Your task to perform on an android device: see creations saved in the google photos Image 0: 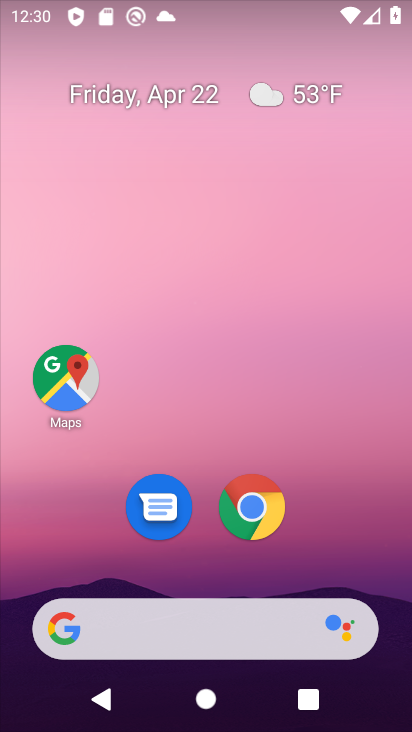
Step 0: drag from (333, 488) to (271, 126)
Your task to perform on an android device: see creations saved in the google photos Image 1: 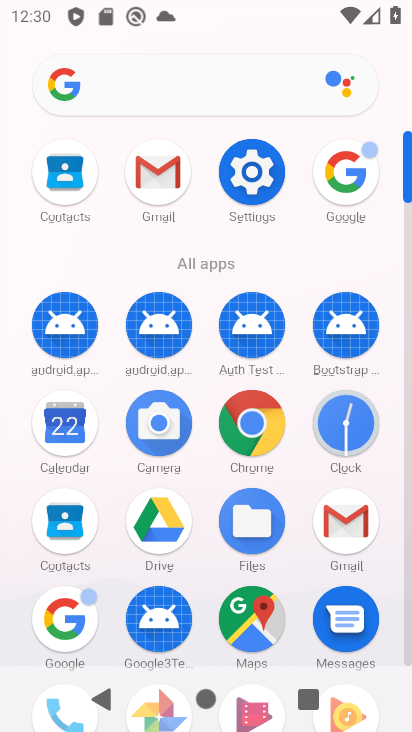
Step 1: drag from (209, 656) to (210, 249)
Your task to perform on an android device: see creations saved in the google photos Image 2: 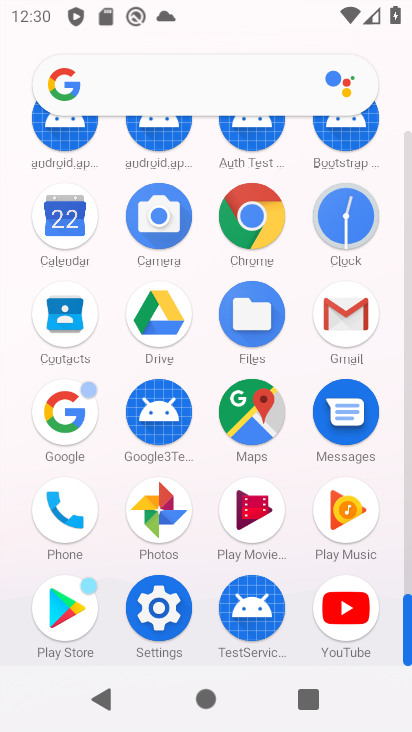
Step 2: click (163, 513)
Your task to perform on an android device: see creations saved in the google photos Image 3: 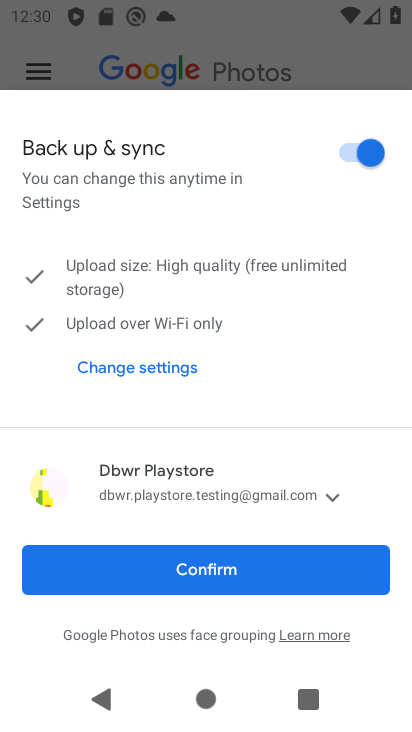
Step 3: click (162, 560)
Your task to perform on an android device: see creations saved in the google photos Image 4: 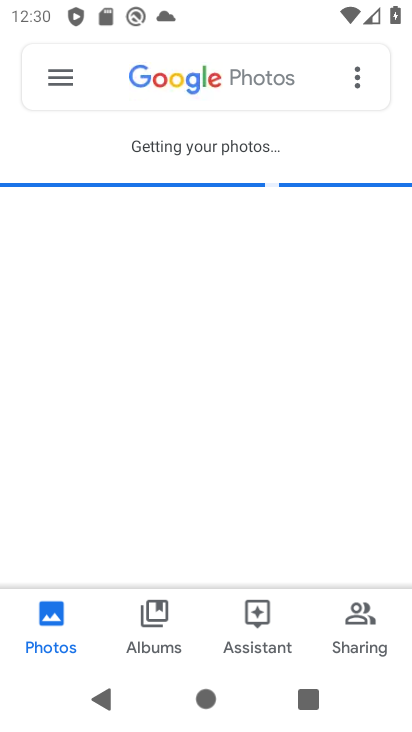
Step 4: click (46, 81)
Your task to perform on an android device: see creations saved in the google photos Image 5: 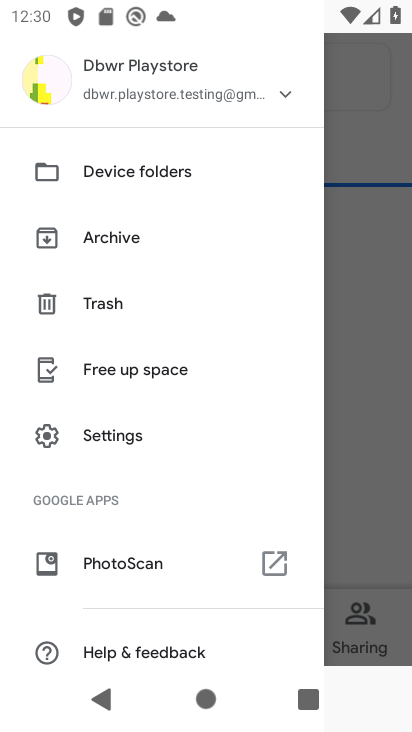
Step 5: click (361, 92)
Your task to perform on an android device: see creations saved in the google photos Image 6: 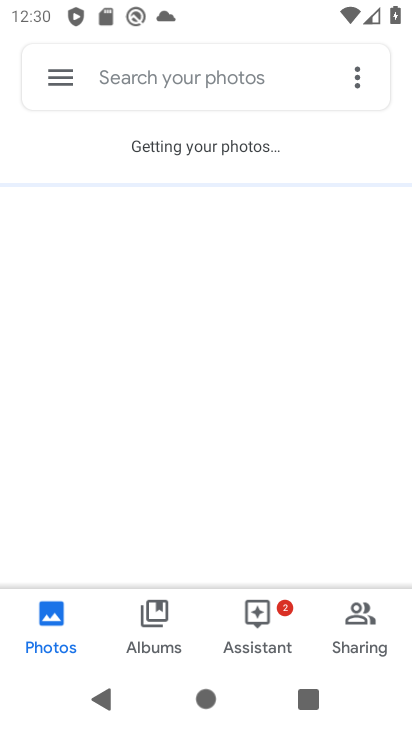
Step 6: click (258, 82)
Your task to perform on an android device: see creations saved in the google photos Image 7: 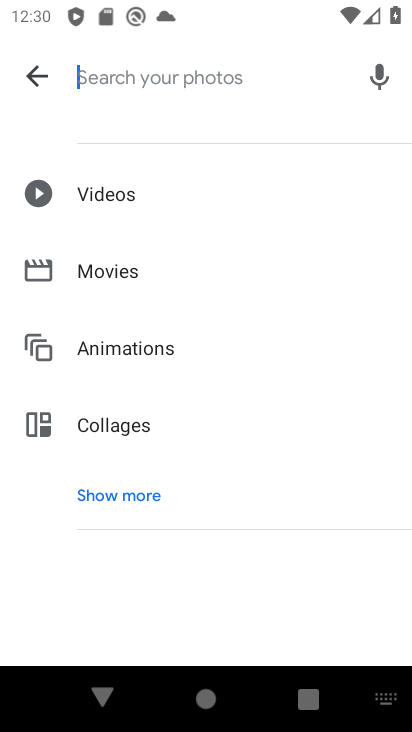
Step 7: click (114, 498)
Your task to perform on an android device: see creations saved in the google photos Image 8: 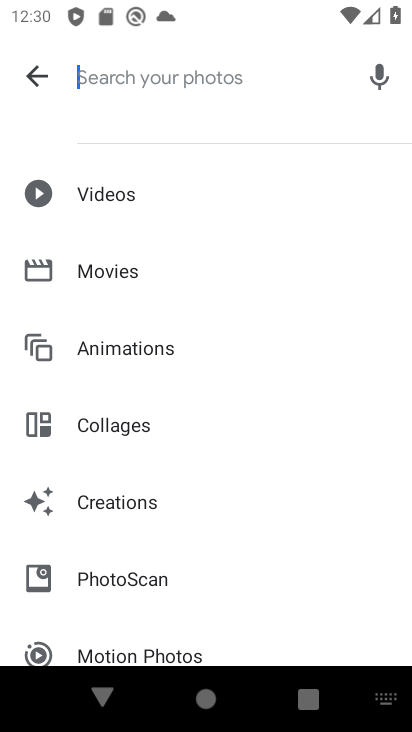
Step 8: click (114, 498)
Your task to perform on an android device: see creations saved in the google photos Image 9: 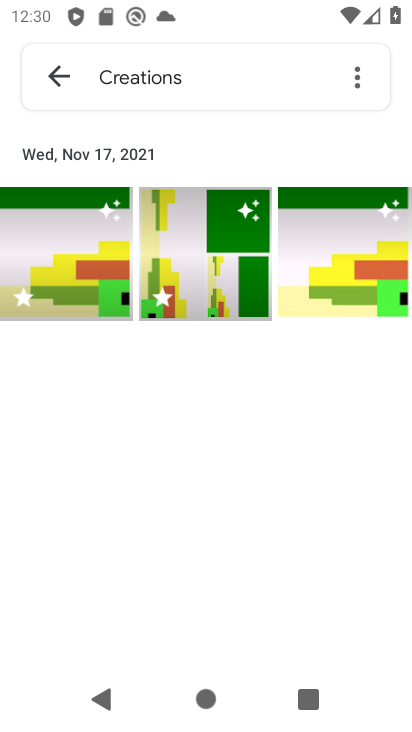
Step 9: task complete